Your task to perform on an android device: open app "Spotify: Music and Podcasts" (install if not already installed), go to login, and select forgot password Image 0: 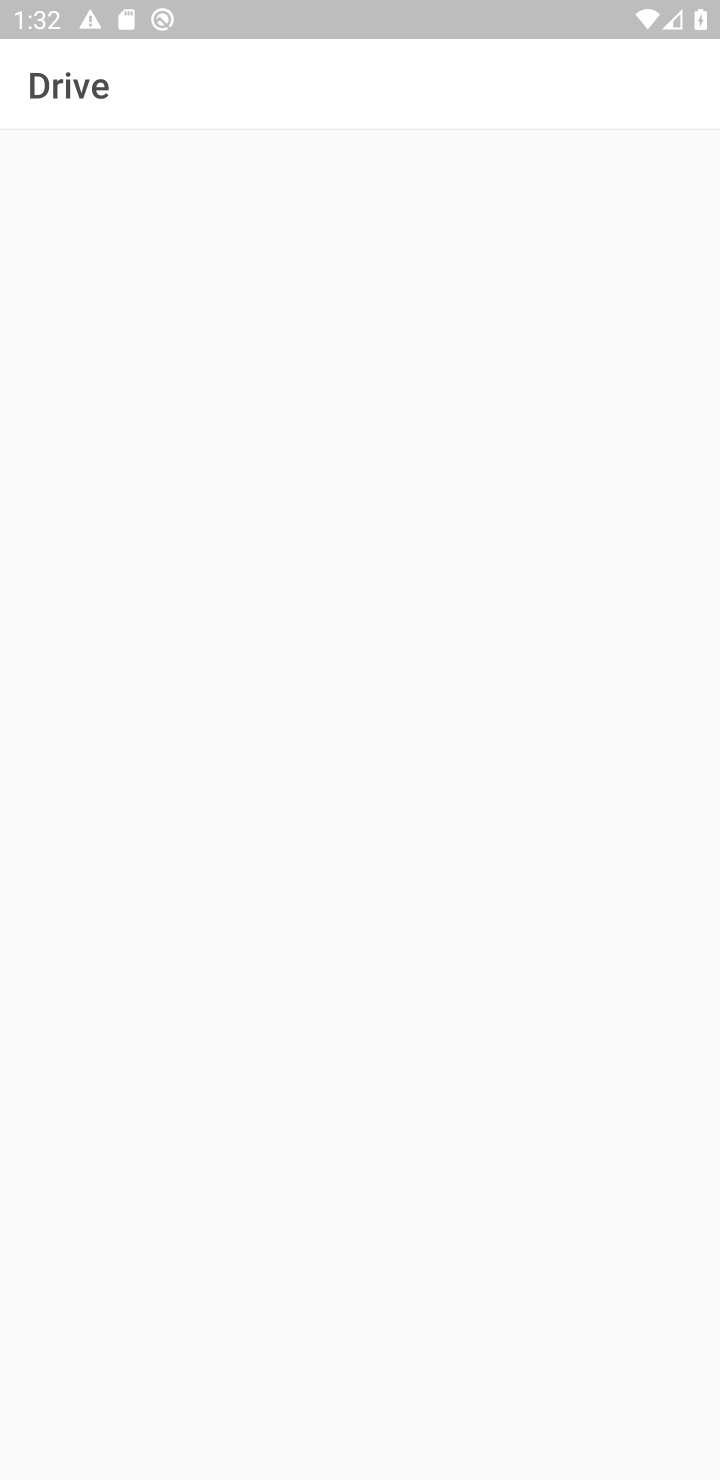
Step 0: press home button
Your task to perform on an android device: open app "Spotify: Music and Podcasts" (install if not already installed), go to login, and select forgot password Image 1: 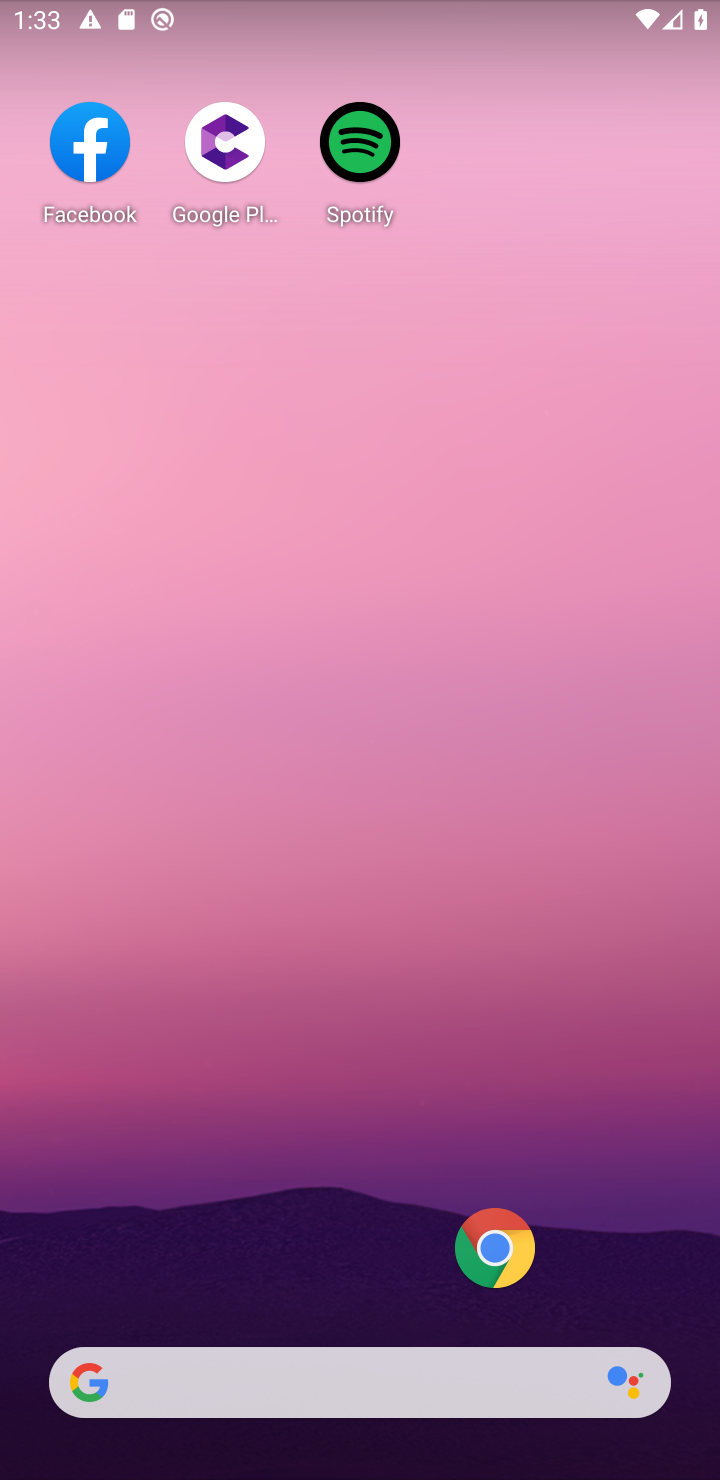
Step 1: drag from (280, 1298) to (337, 393)
Your task to perform on an android device: open app "Spotify: Music and Podcasts" (install if not already installed), go to login, and select forgot password Image 2: 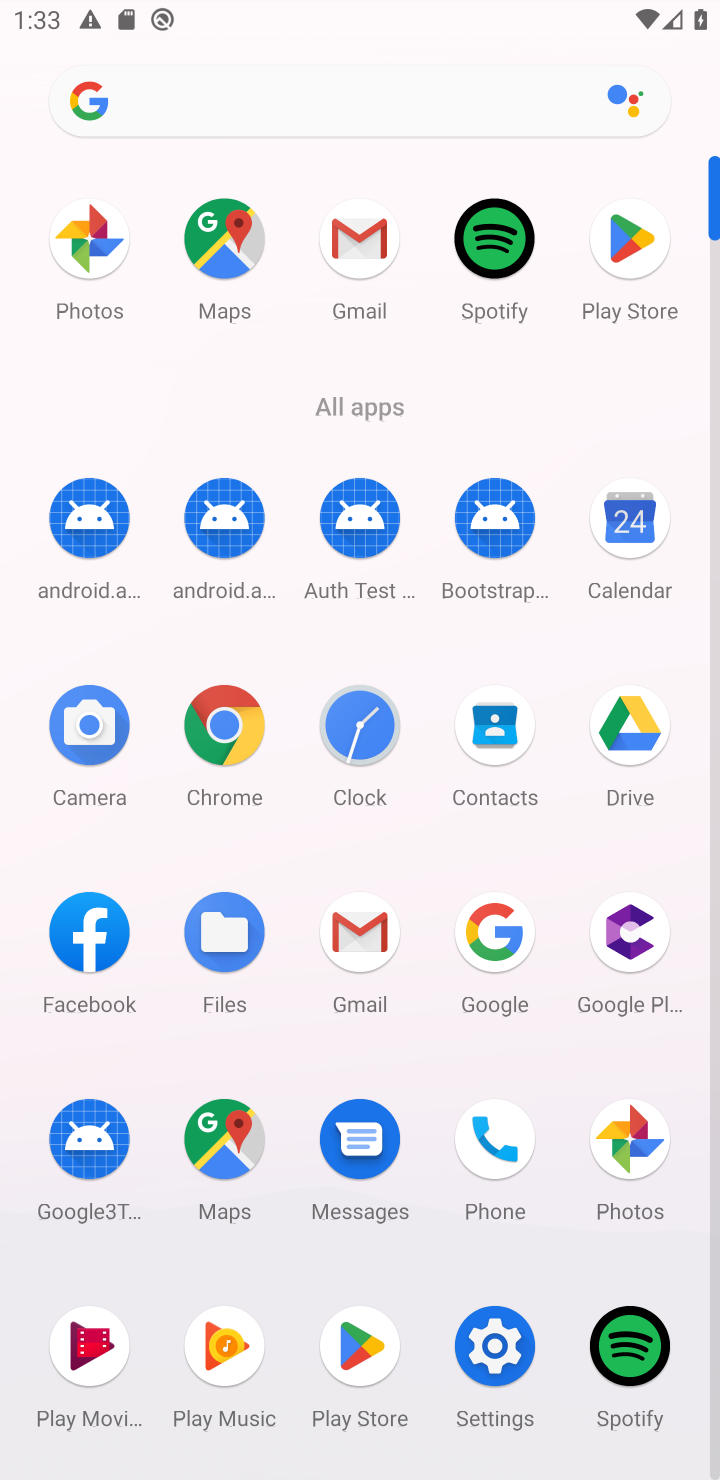
Step 2: click (610, 244)
Your task to perform on an android device: open app "Spotify: Music and Podcasts" (install if not already installed), go to login, and select forgot password Image 3: 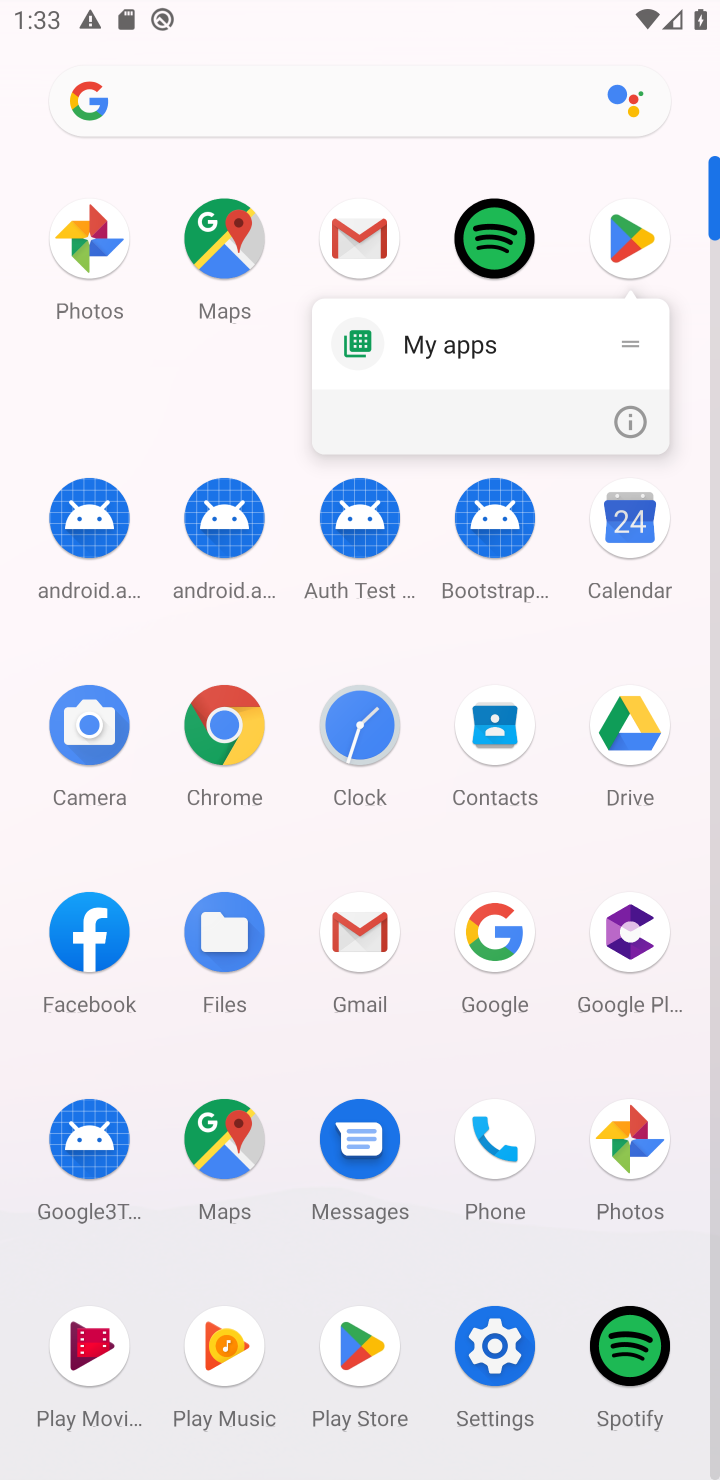
Step 3: click (610, 244)
Your task to perform on an android device: open app "Spotify: Music and Podcasts" (install if not already installed), go to login, and select forgot password Image 4: 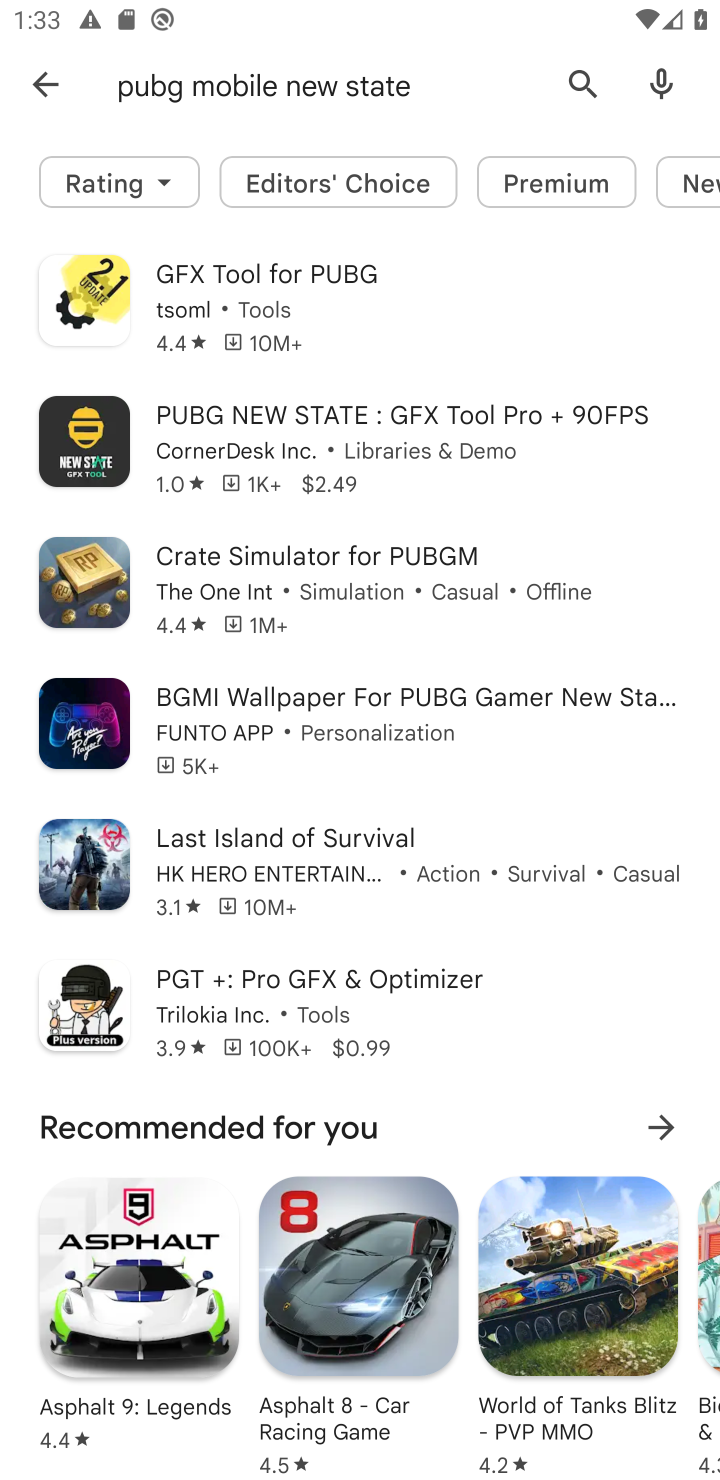
Step 4: click (56, 84)
Your task to perform on an android device: open app "Spotify: Music and Podcasts" (install if not already installed), go to login, and select forgot password Image 5: 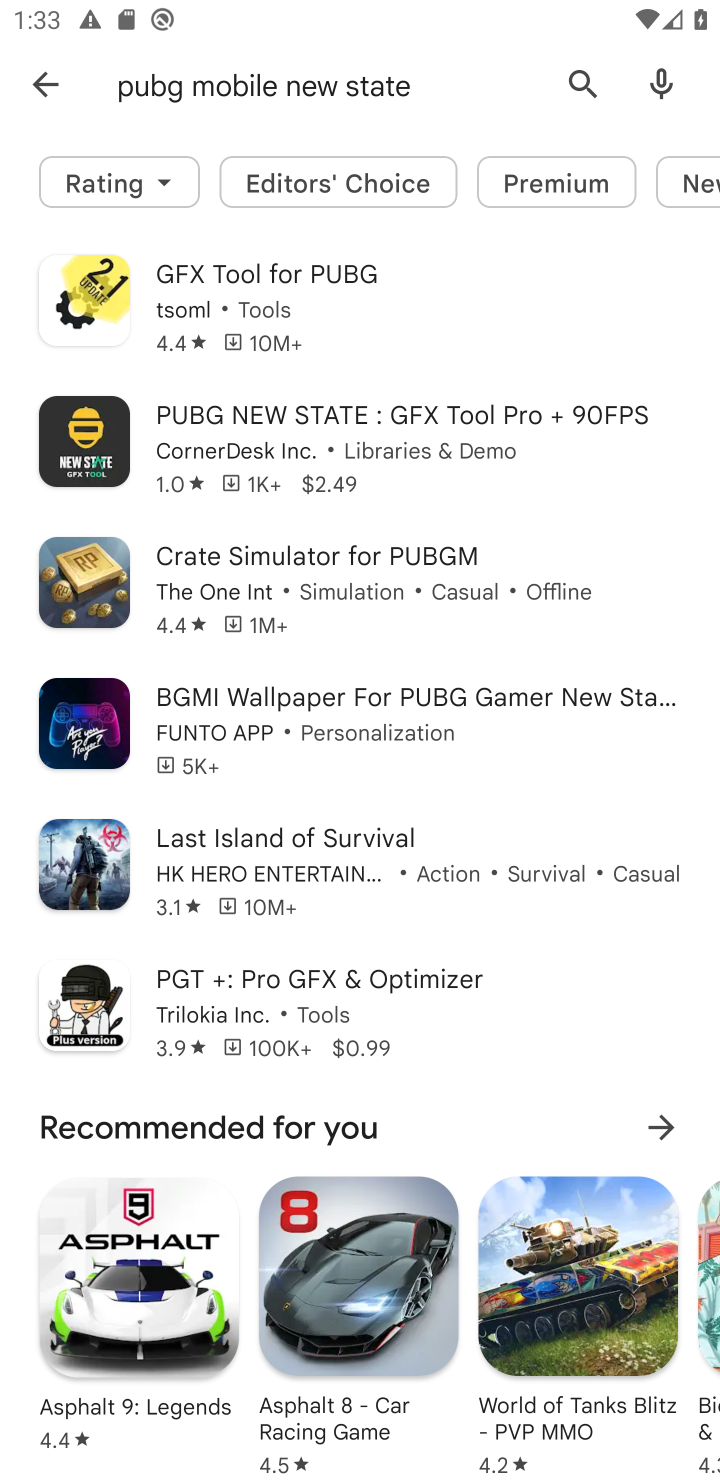
Step 5: click (66, 75)
Your task to perform on an android device: open app "Spotify: Music and Podcasts" (install if not already installed), go to login, and select forgot password Image 6: 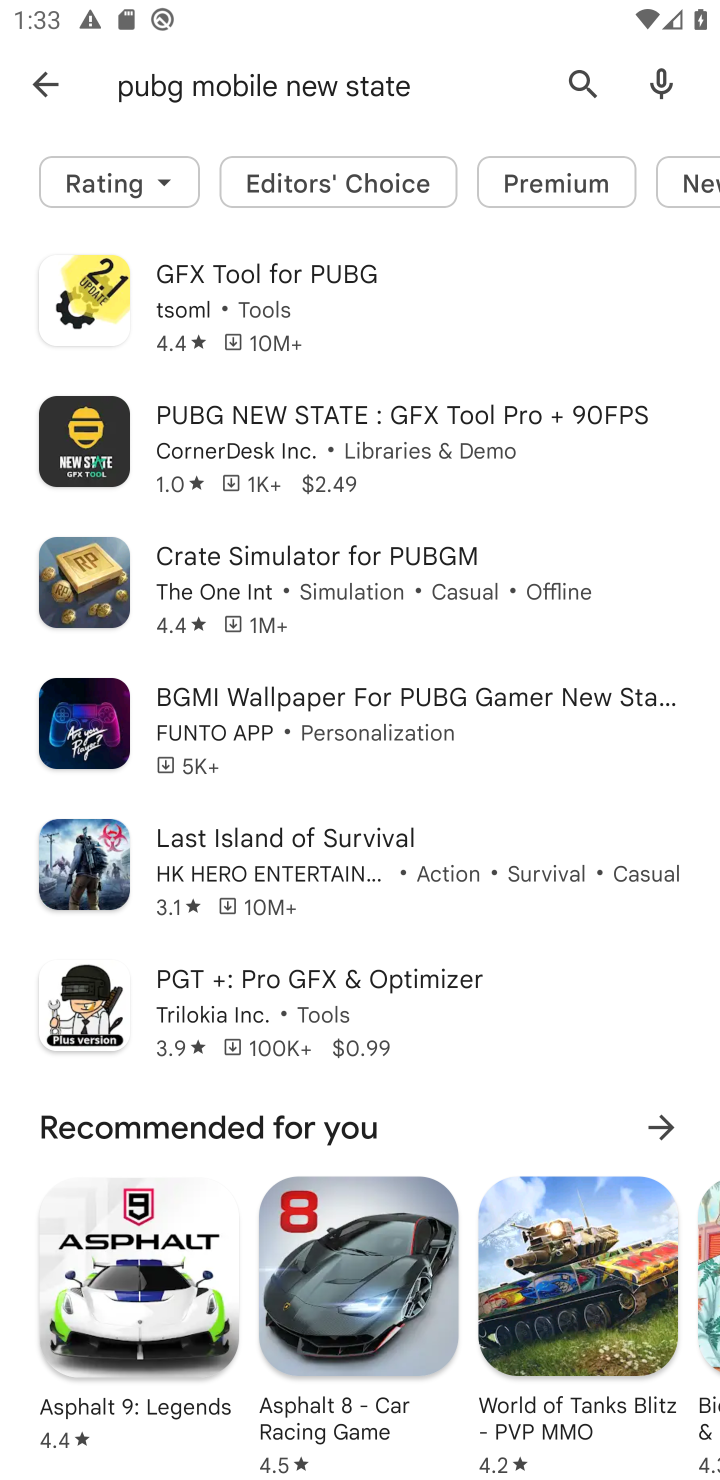
Step 6: click (37, 79)
Your task to perform on an android device: open app "Spotify: Music and Podcasts" (install if not already installed), go to login, and select forgot password Image 7: 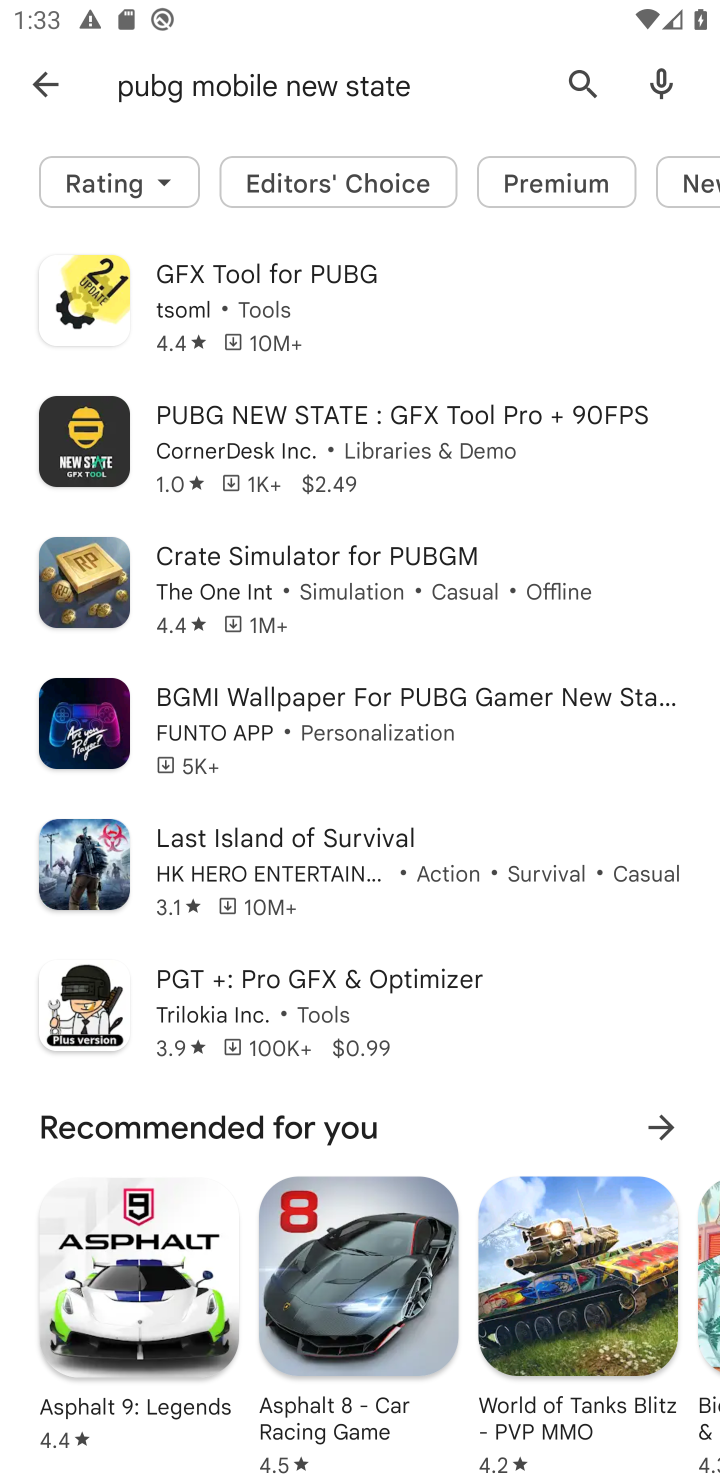
Step 7: click (40, 56)
Your task to perform on an android device: open app "Spotify: Music and Podcasts" (install if not already installed), go to login, and select forgot password Image 8: 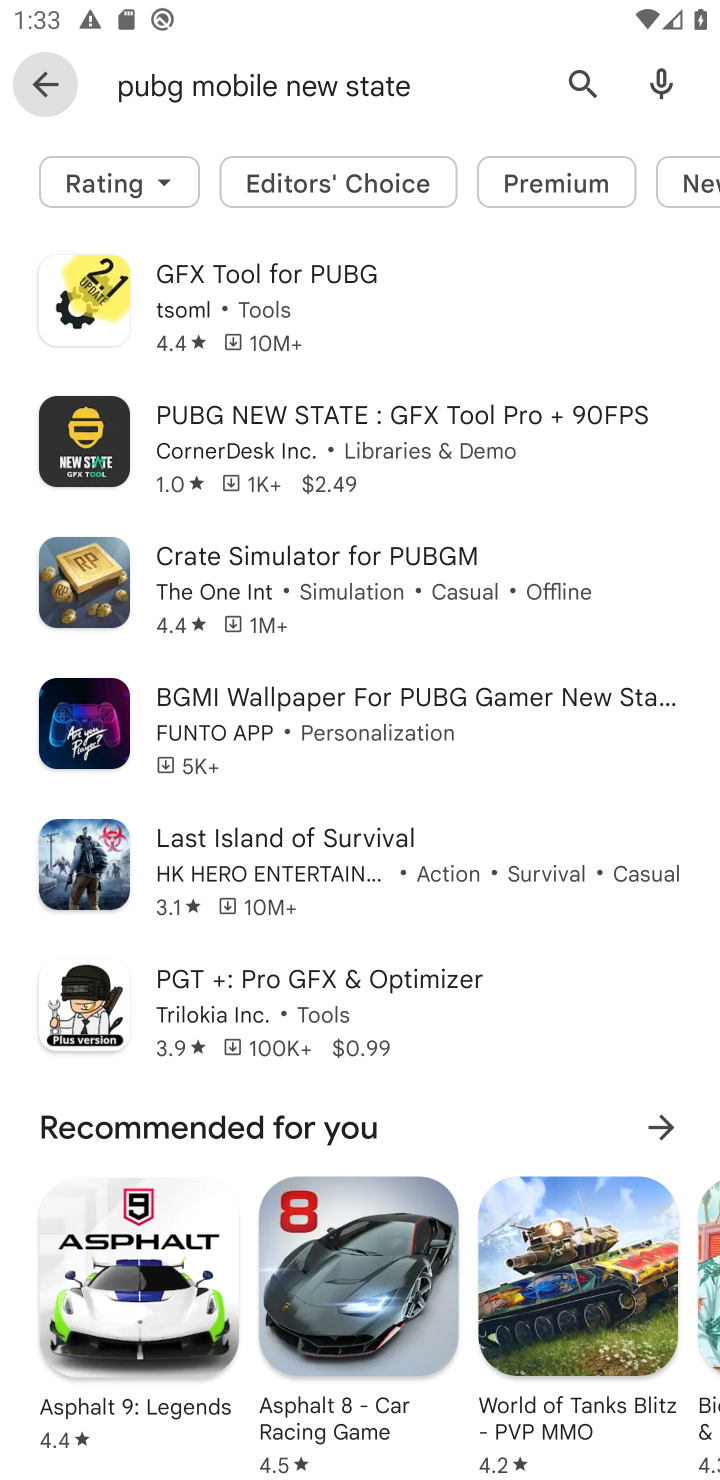
Step 8: click (593, 92)
Your task to perform on an android device: open app "Spotify: Music and Podcasts" (install if not already installed), go to login, and select forgot password Image 9: 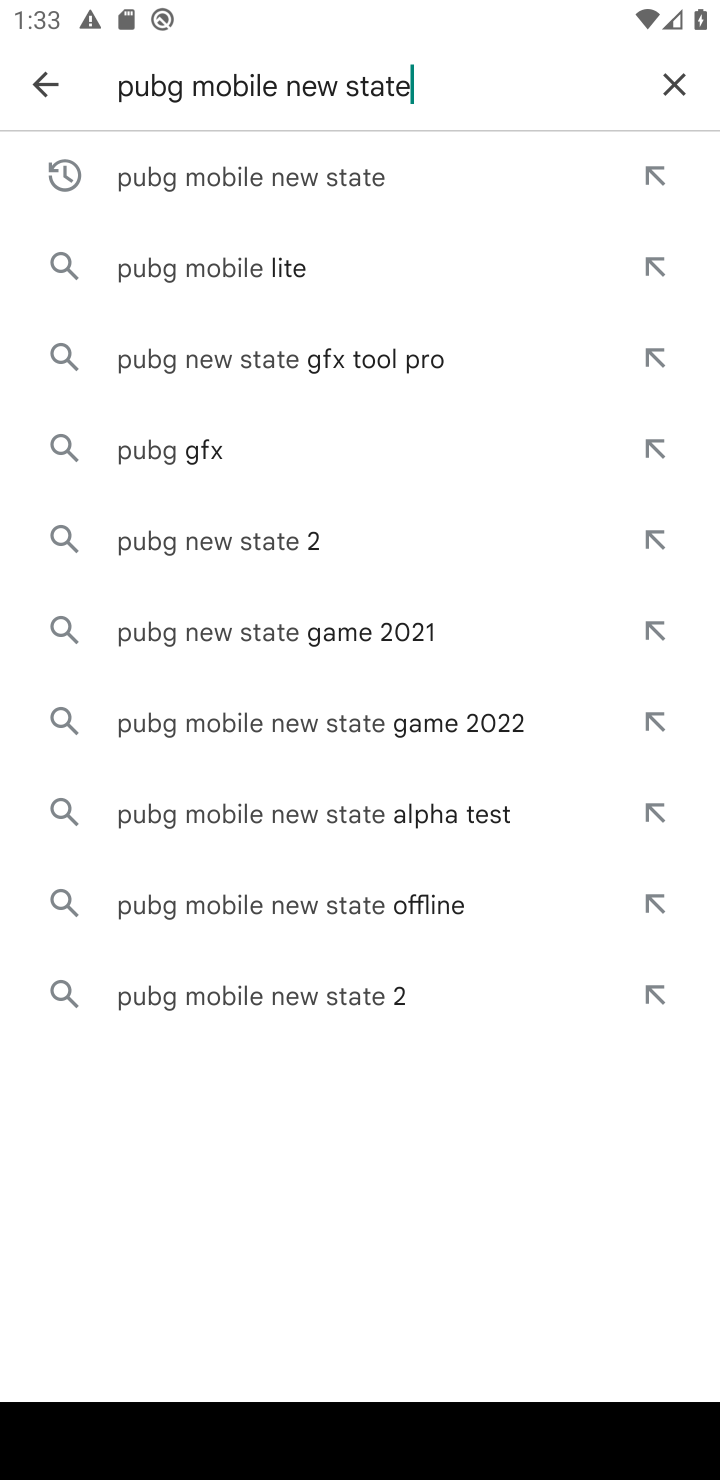
Step 9: click (669, 96)
Your task to perform on an android device: open app "Spotify: Music and Podcasts" (install if not already installed), go to login, and select forgot password Image 10: 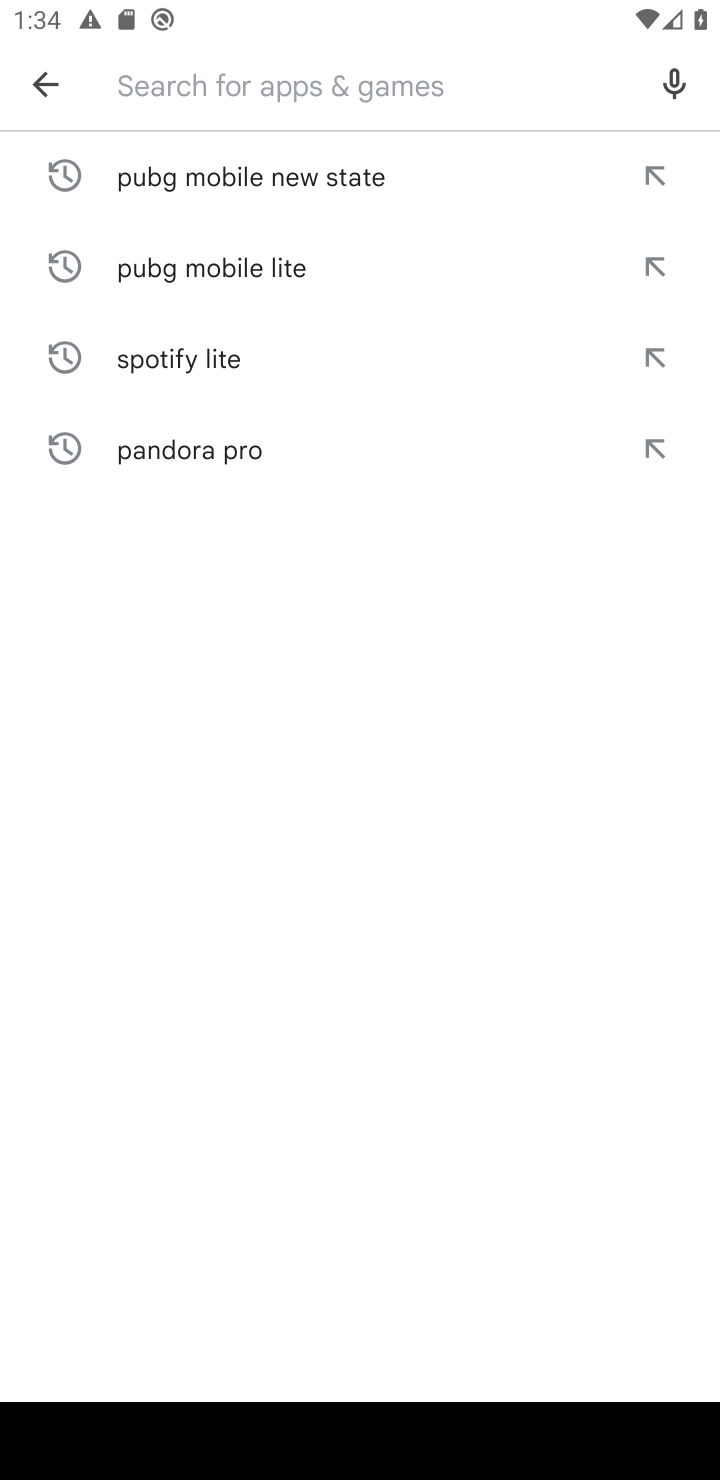
Step 10: click (174, 360)
Your task to perform on an android device: open app "Spotify: Music and Podcasts" (install if not already installed), go to login, and select forgot password Image 11: 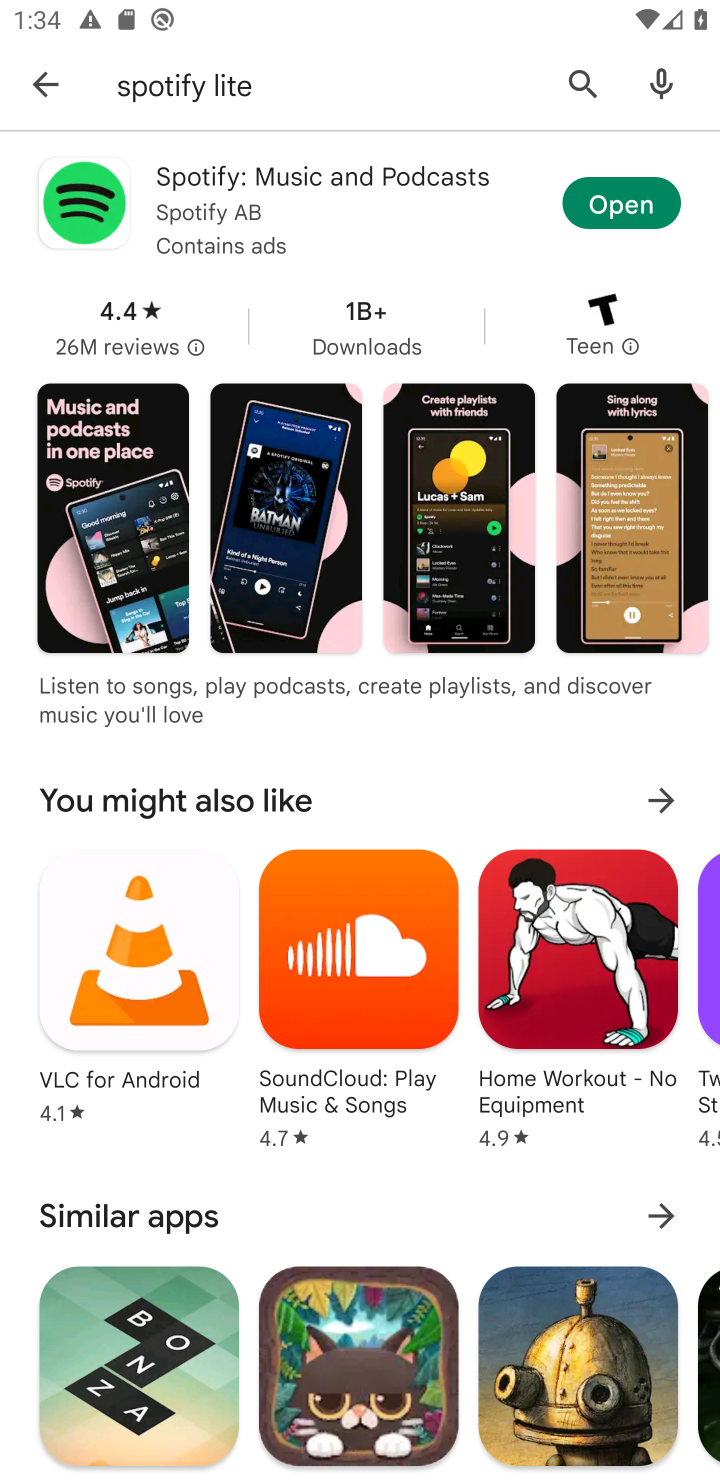
Step 11: click (637, 187)
Your task to perform on an android device: open app "Spotify: Music and Podcasts" (install if not already installed), go to login, and select forgot password Image 12: 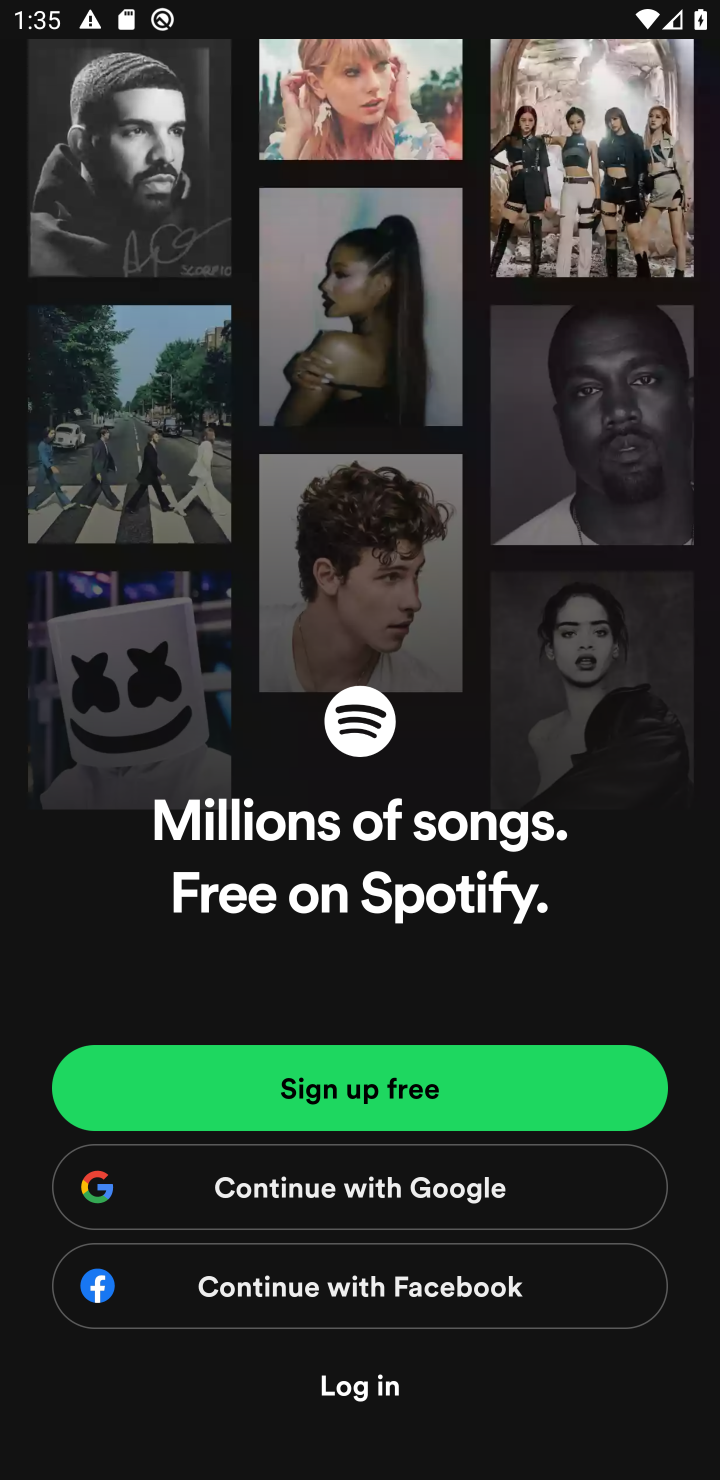
Step 12: task complete